Your task to perform on an android device: Open the calendar app, open the side menu, and click the "Day" option Image 0: 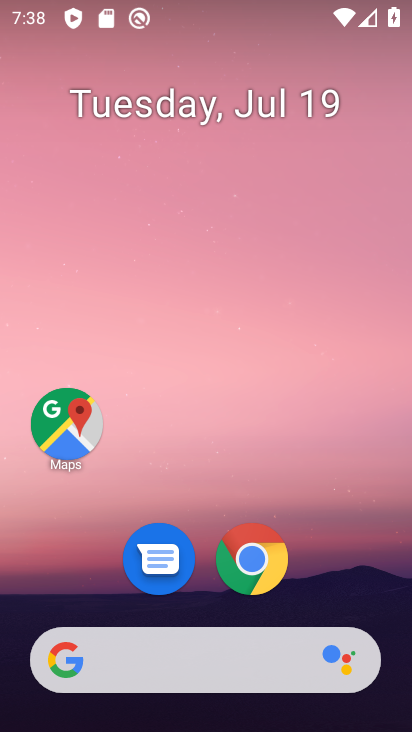
Step 0: drag from (106, 552) to (178, 10)
Your task to perform on an android device: Open the calendar app, open the side menu, and click the "Day" option Image 1: 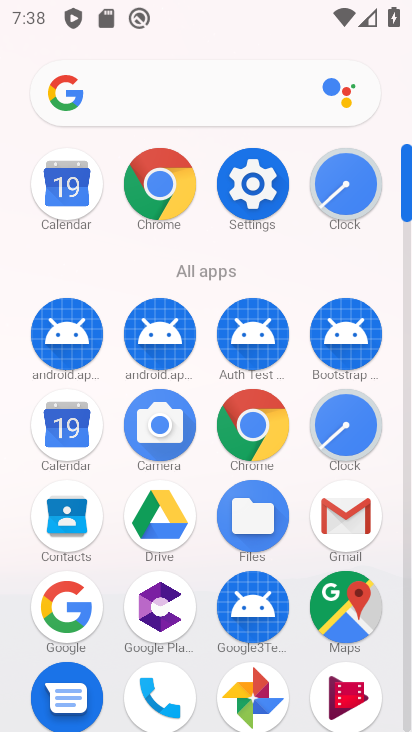
Step 1: click (78, 429)
Your task to perform on an android device: Open the calendar app, open the side menu, and click the "Day" option Image 2: 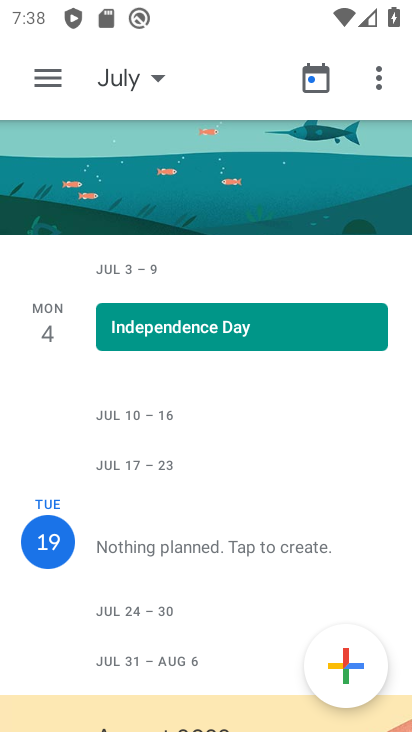
Step 2: click (35, 83)
Your task to perform on an android device: Open the calendar app, open the side menu, and click the "Day" option Image 3: 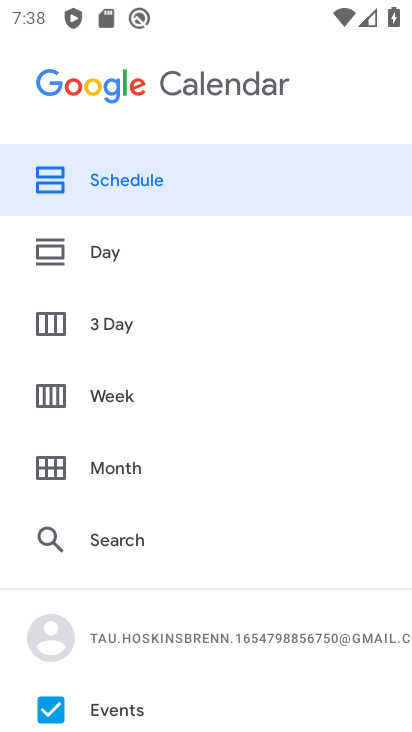
Step 3: click (165, 265)
Your task to perform on an android device: Open the calendar app, open the side menu, and click the "Day" option Image 4: 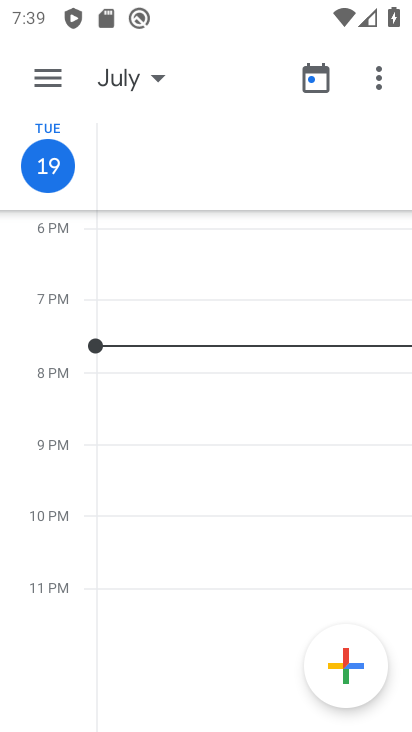
Step 4: task complete